Your task to perform on an android device: Open calendar and show me the first week of next month Image 0: 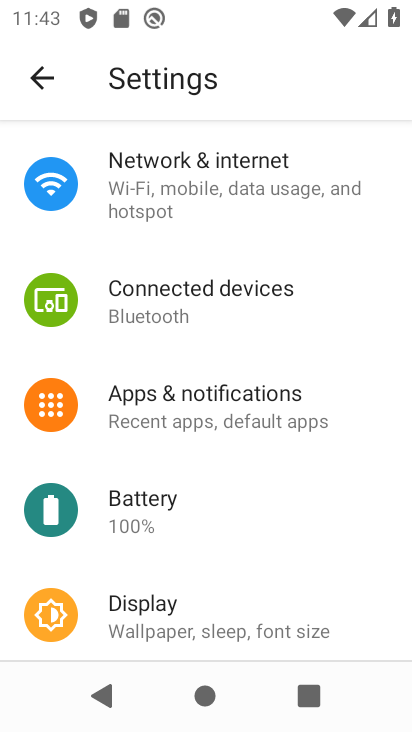
Step 0: press home button
Your task to perform on an android device: Open calendar and show me the first week of next month Image 1: 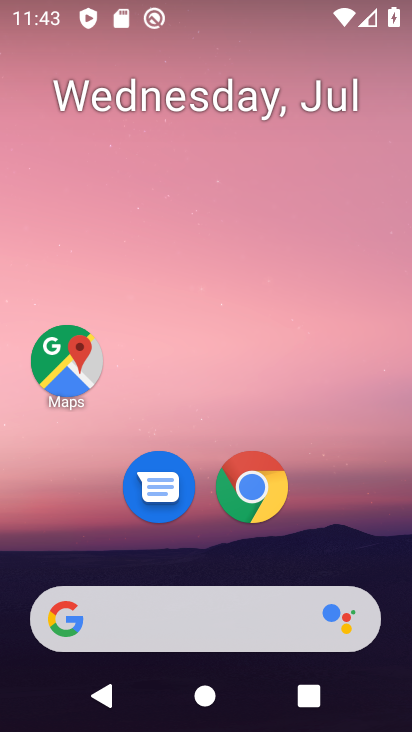
Step 1: drag from (189, 678) to (213, 257)
Your task to perform on an android device: Open calendar and show me the first week of next month Image 2: 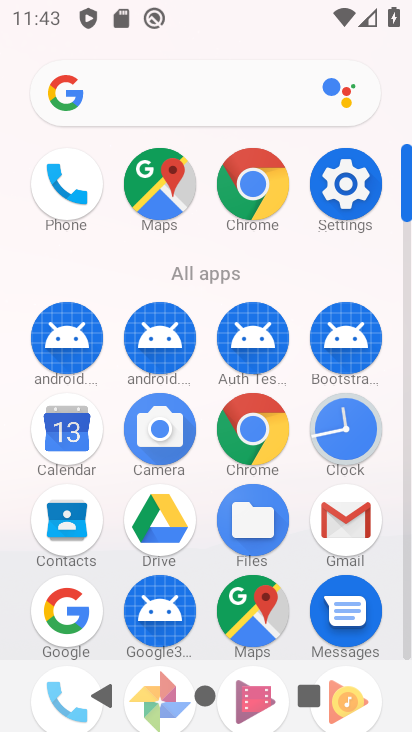
Step 2: click (75, 448)
Your task to perform on an android device: Open calendar and show me the first week of next month Image 3: 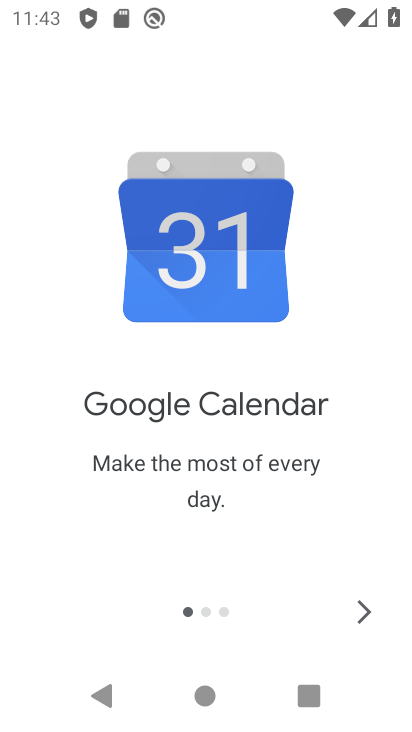
Step 3: click (362, 618)
Your task to perform on an android device: Open calendar and show me the first week of next month Image 4: 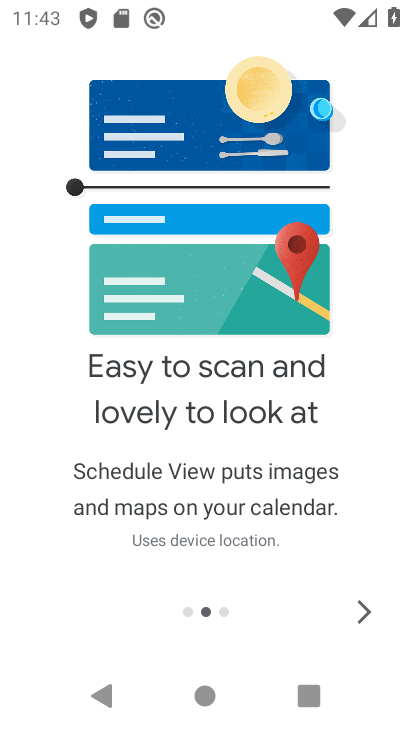
Step 4: click (354, 624)
Your task to perform on an android device: Open calendar and show me the first week of next month Image 5: 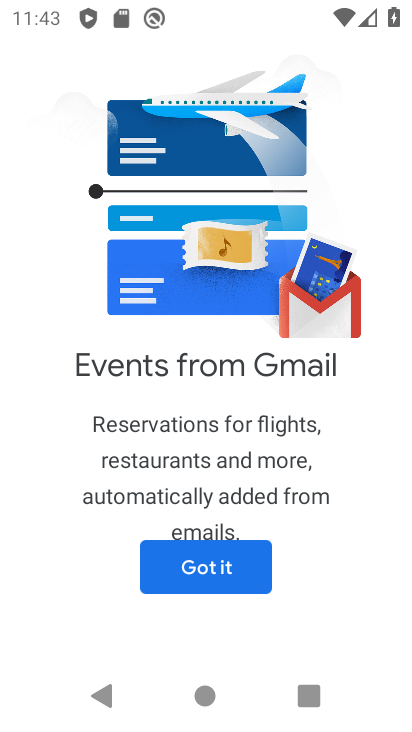
Step 5: click (219, 577)
Your task to perform on an android device: Open calendar and show me the first week of next month Image 6: 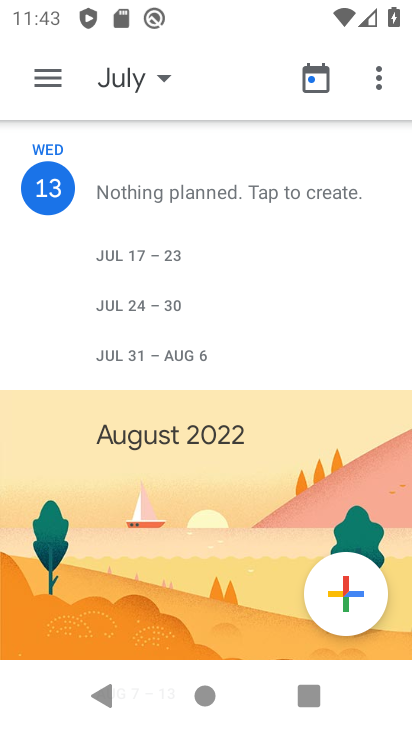
Step 6: click (161, 82)
Your task to perform on an android device: Open calendar and show me the first week of next month Image 7: 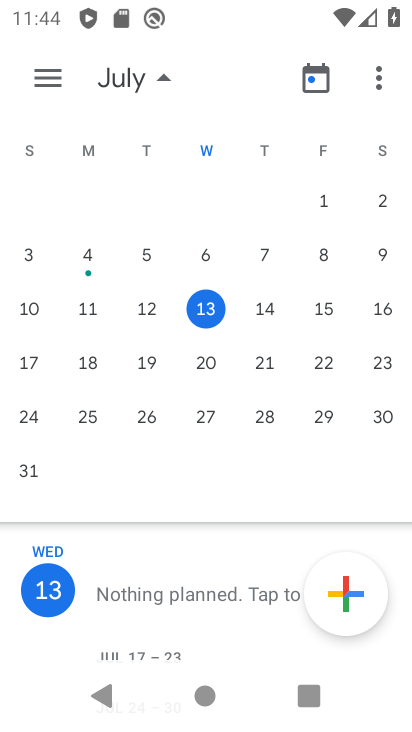
Step 7: task complete